Your task to perform on an android device: Search for beats solo 3 on costco, select the first entry, add it to the cart, then select checkout. Image 0: 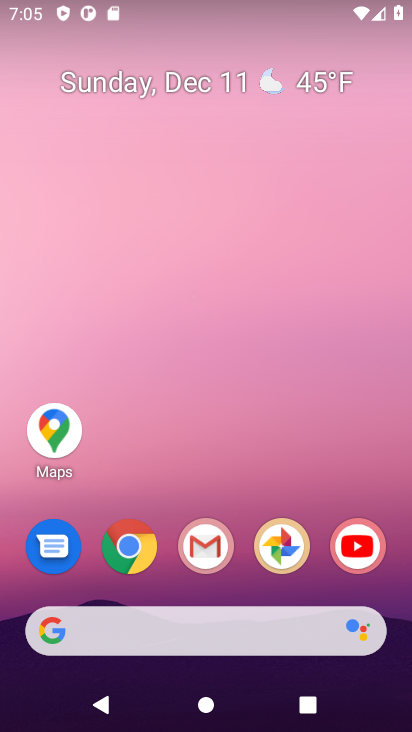
Step 0: click (125, 547)
Your task to perform on an android device: Search for beats solo 3 on costco, select the first entry, add it to the cart, then select checkout. Image 1: 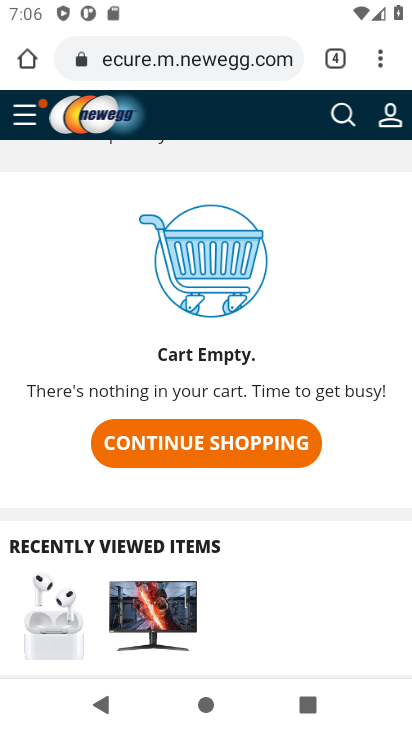
Step 1: click (160, 52)
Your task to perform on an android device: Search for beats solo 3 on costco, select the first entry, add it to the cart, then select checkout. Image 2: 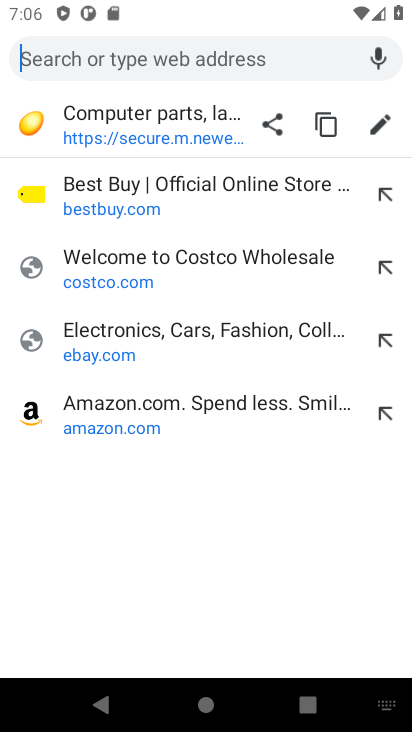
Step 2: click (152, 275)
Your task to perform on an android device: Search for beats solo 3 on costco, select the first entry, add it to the cart, then select checkout. Image 3: 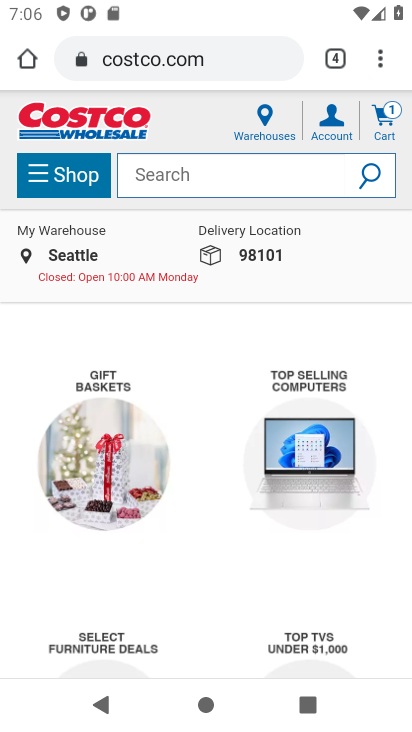
Step 3: click (165, 172)
Your task to perform on an android device: Search for beats solo 3 on costco, select the first entry, add it to the cart, then select checkout. Image 4: 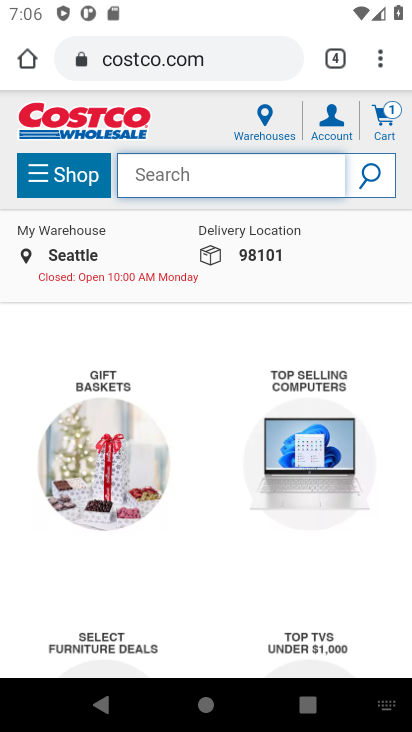
Step 4: type " beats solo 3"
Your task to perform on an android device: Search for beats solo 3 on costco, select the first entry, add it to the cart, then select checkout. Image 5: 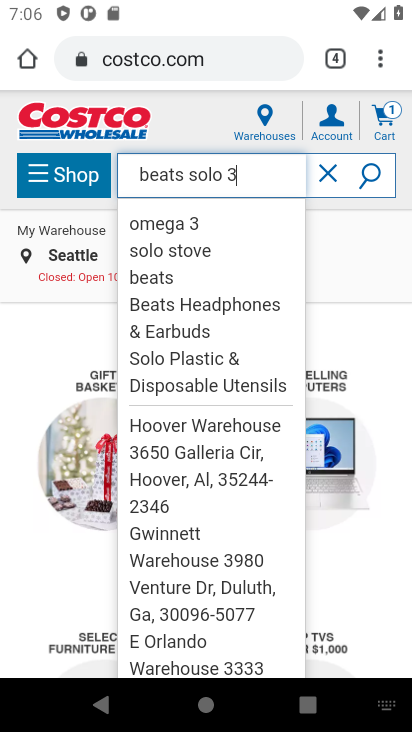
Step 5: click (366, 182)
Your task to perform on an android device: Search for beats solo 3 on costco, select the first entry, add it to the cart, then select checkout. Image 6: 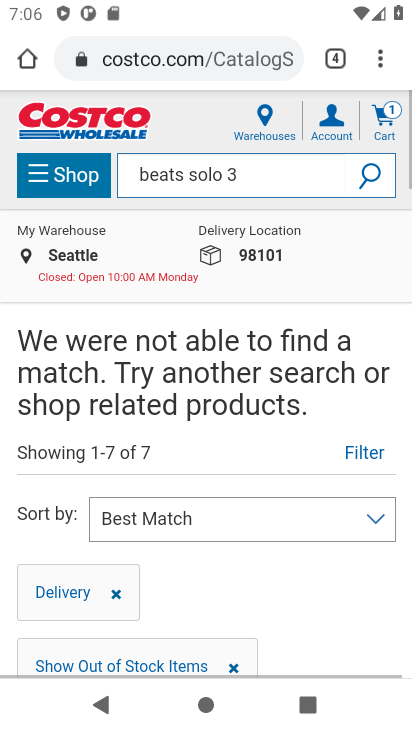
Step 6: task complete